Your task to perform on an android device: Go to Google maps Image 0: 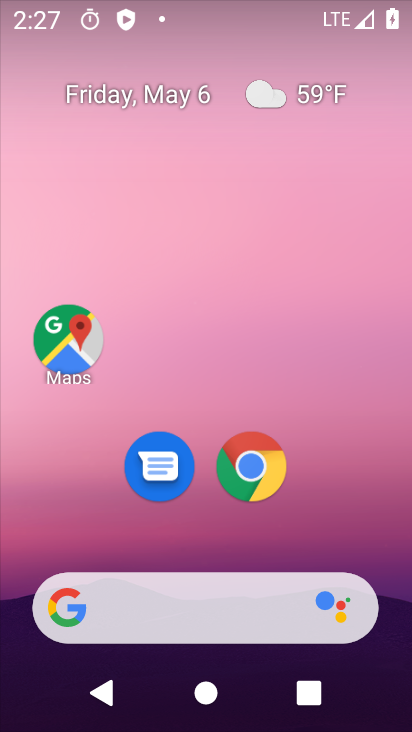
Step 0: click (72, 348)
Your task to perform on an android device: Go to Google maps Image 1: 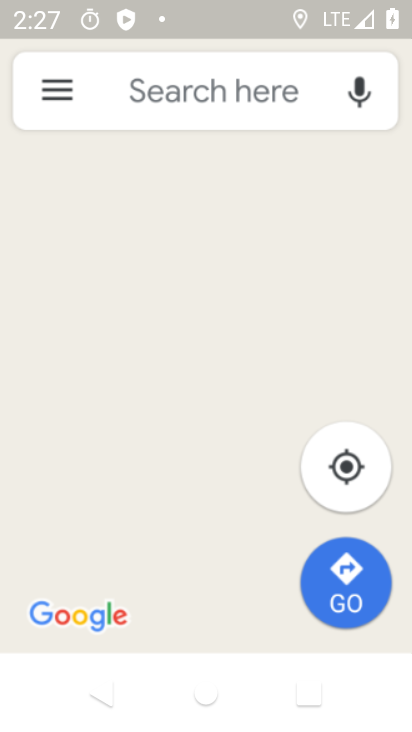
Step 1: task complete